Your task to perform on an android device: turn off wifi Image 0: 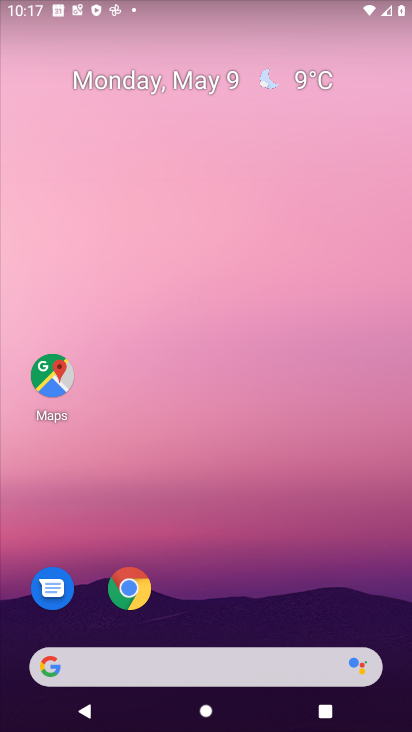
Step 0: press home button
Your task to perform on an android device: turn off wifi Image 1: 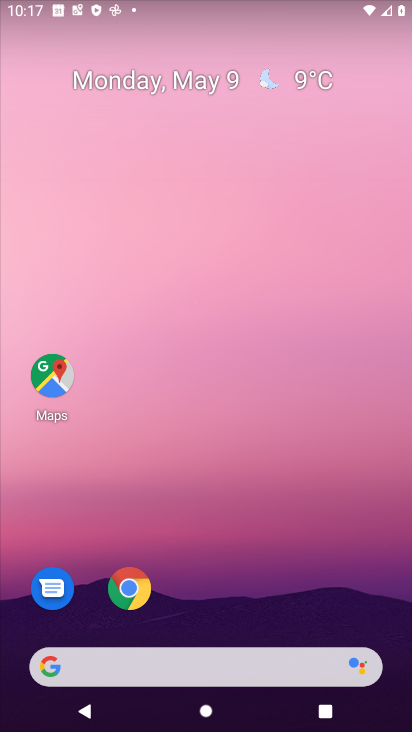
Step 1: drag from (180, 670) to (288, 120)
Your task to perform on an android device: turn off wifi Image 2: 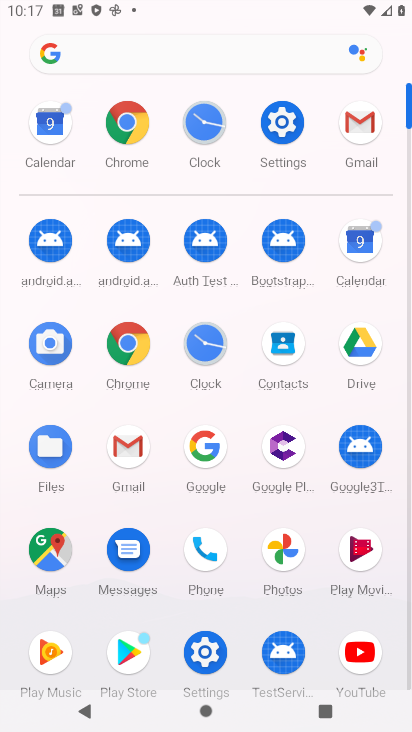
Step 2: click (292, 120)
Your task to perform on an android device: turn off wifi Image 3: 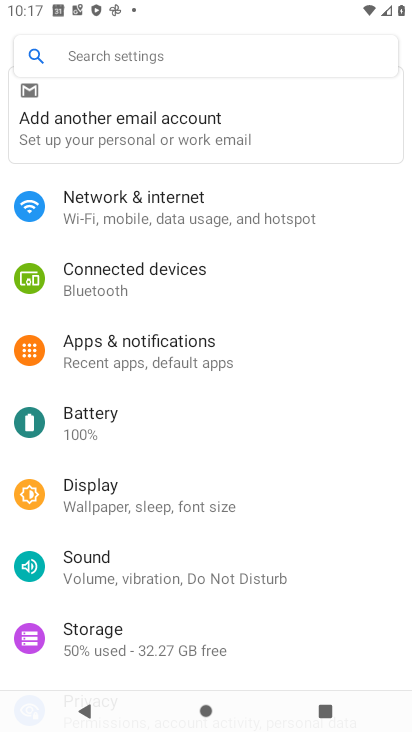
Step 3: click (212, 216)
Your task to perform on an android device: turn off wifi Image 4: 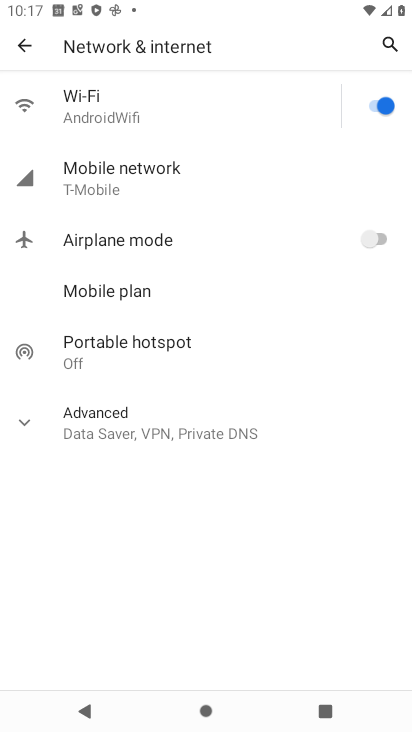
Step 4: click (89, 110)
Your task to perform on an android device: turn off wifi Image 5: 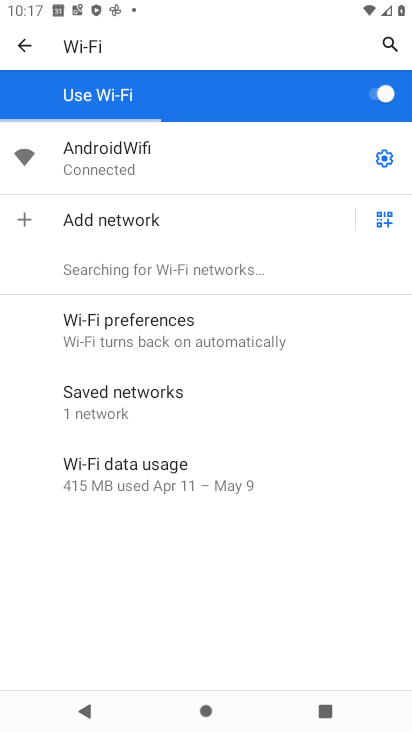
Step 5: click (379, 93)
Your task to perform on an android device: turn off wifi Image 6: 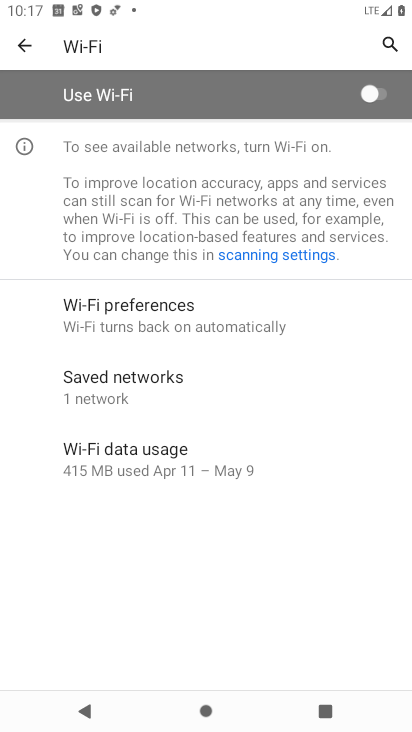
Step 6: task complete